Your task to perform on an android device: clear history in the chrome app Image 0: 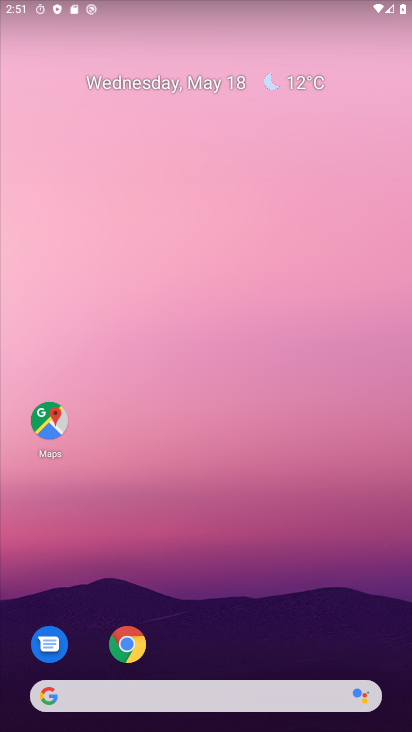
Step 0: click (134, 648)
Your task to perform on an android device: clear history in the chrome app Image 1: 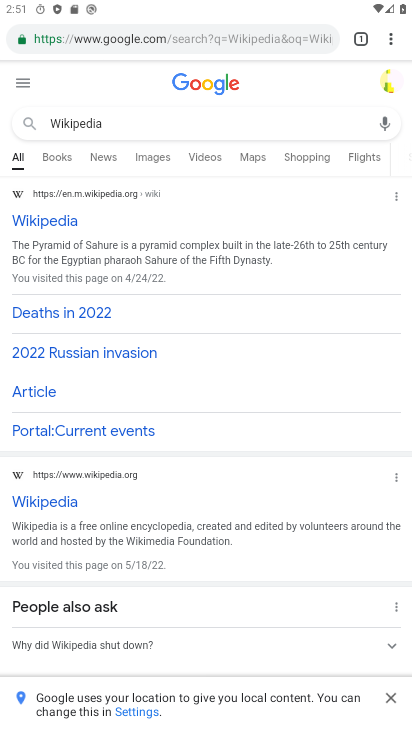
Step 1: click (388, 38)
Your task to perform on an android device: clear history in the chrome app Image 2: 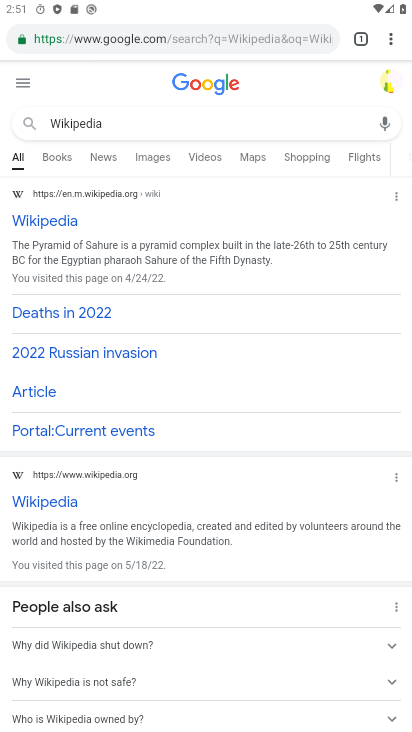
Step 2: click (390, 36)
Your task to perform on an android device: clear history in the chrome app Image 3: 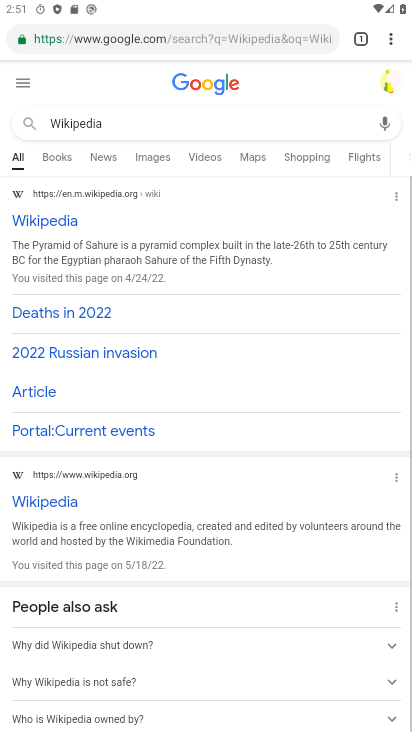
Step 3: click (390, 37)
Your task to perform on an android device: clear history in the chrome app Image 4: 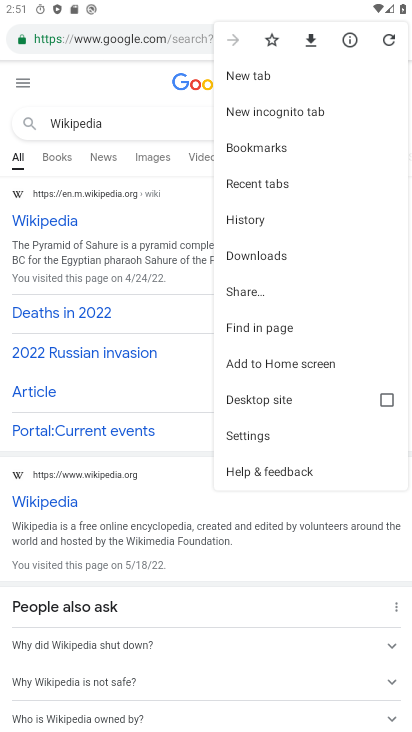
Step 4: click (240, 431)
Your task to perform on an android device: clear history in the chrome app Image 5: 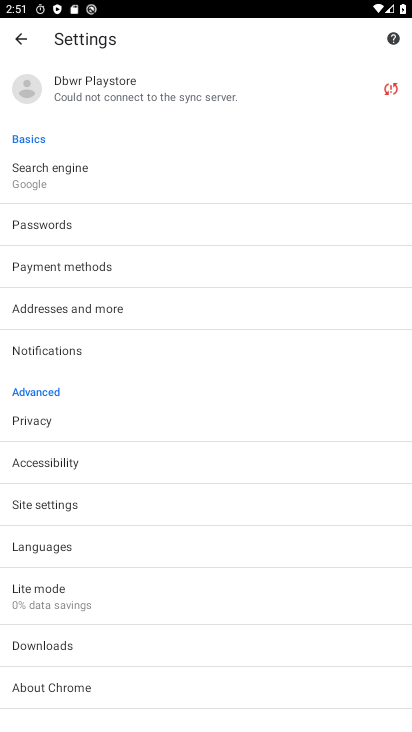
Step 5: click (16, 42)
Your task to perform on an android device: clear history in the chrome app Image 6: 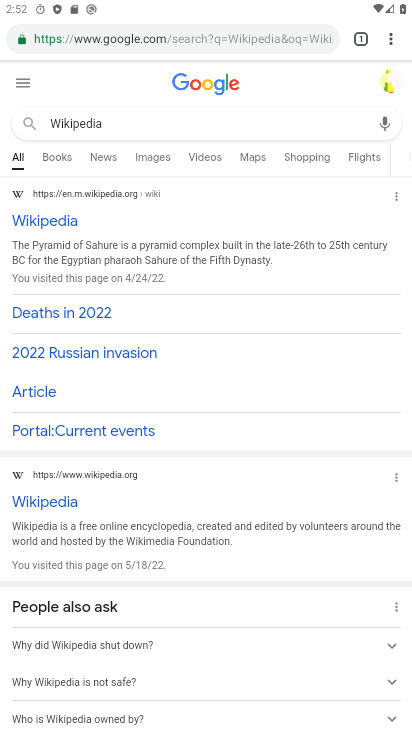
Step 6: click (392, 39)
Your task to perform on an android device: clear history in the chrome app Image 7: 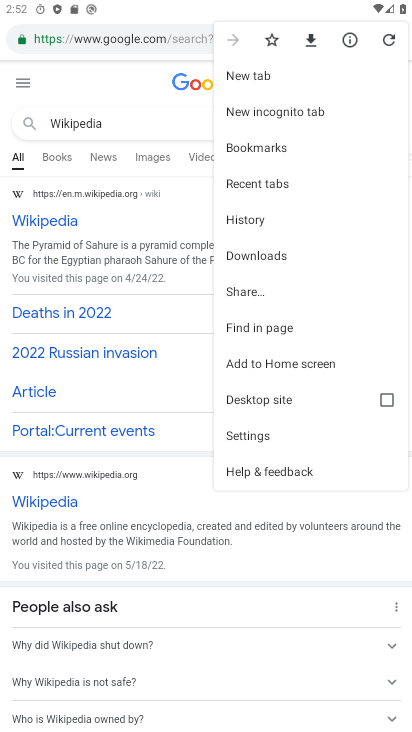
Step 7: click (242, 219)
Your task to perform on an android device: clear history in the chrome app Image 8: 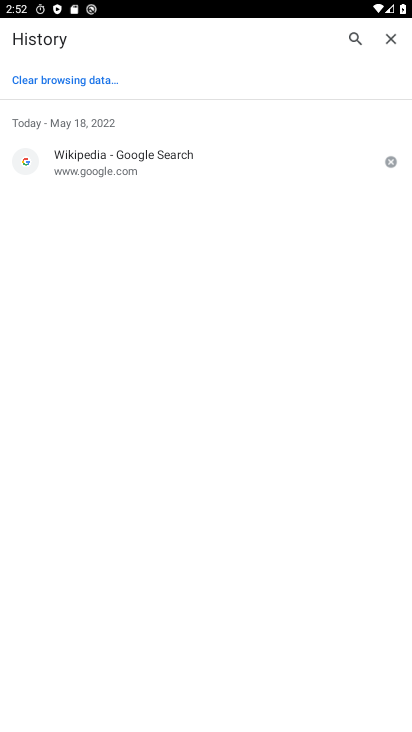
Step 8: click (84, 83)
Your task to perform on an android device: clear history in the chrome app Image 9: 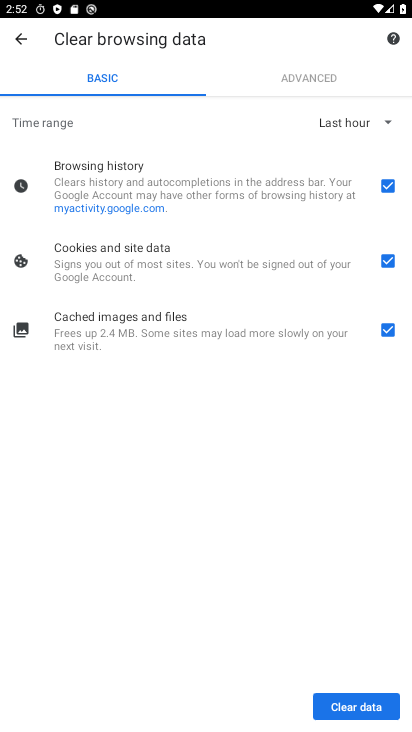
Step 9: click (340, 700)
Your task to perform on an android device: clear history in the chrome app Image 10: 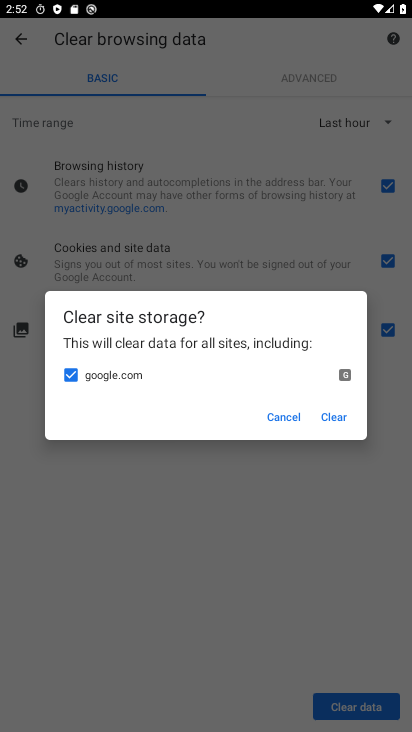
Step 10: click (332, 414)
Your task to perform on an android device: clear history in the chrome app Image 11: 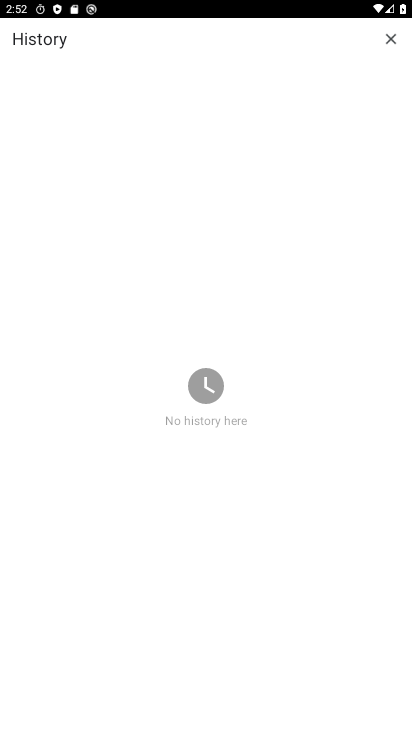
Step 11: task complete